Your task to perform on an android device: make emails show in primary in the gmail app Image 0: 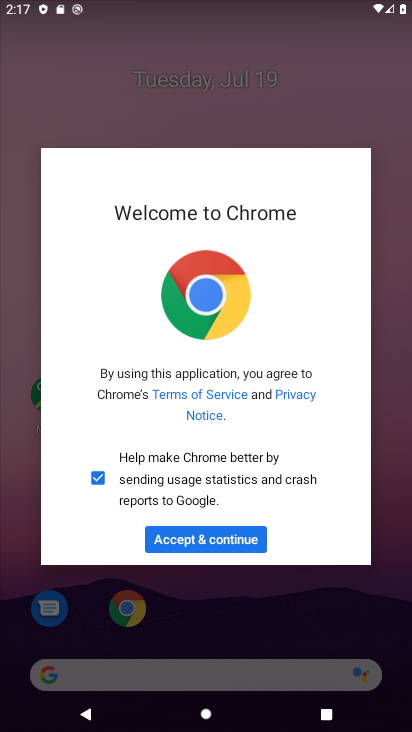
Step 0: press home button
Your task to perform on an android device: make emails show in primary in the gmail app Image 1: 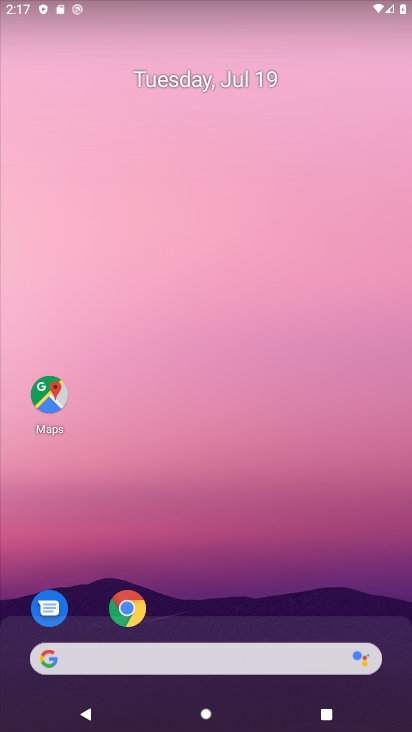
Step 1: drag from (222, 610) to (185, 24)
Your task to perform on an android device: make emails show in primary in the gmail app Image 2: 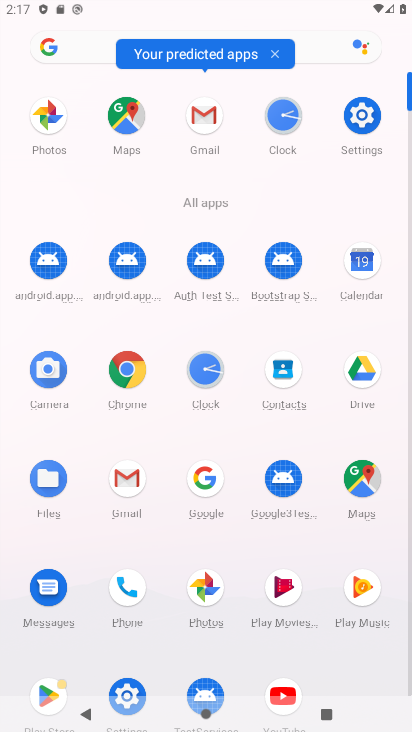
Step 2: click (204, 107)
Your task to perform on an android device: make emails show in primary in the gmail app Image 3: 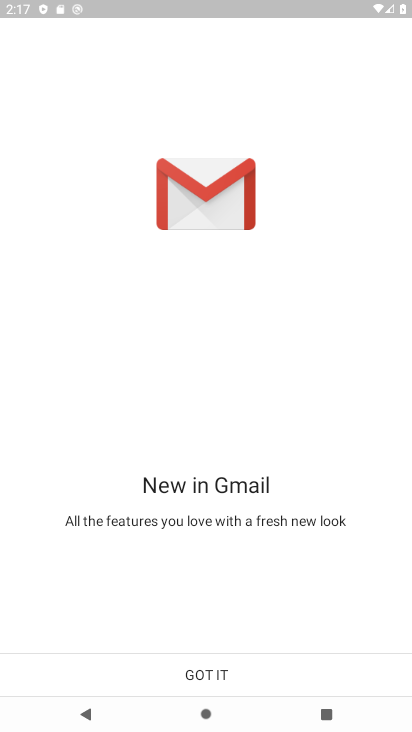
Step 3: click (210, 662)
Your task to perform on an android device: make emails show in primary in the gmail app Image 4: 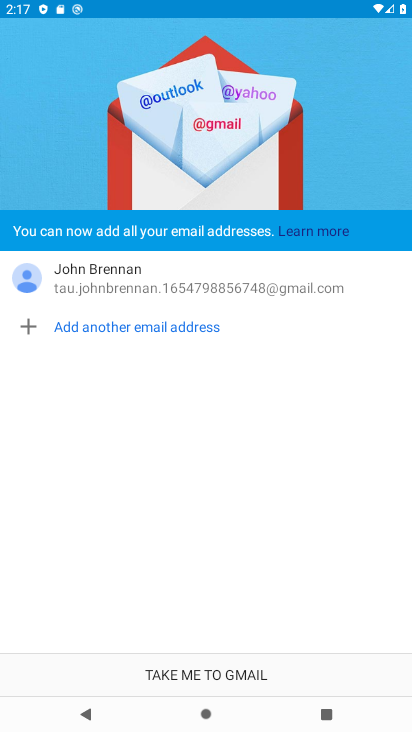
Step 4: click (212, 672)
Your task to perform on an android device: make emails show in primary in the gmail app Image 5: 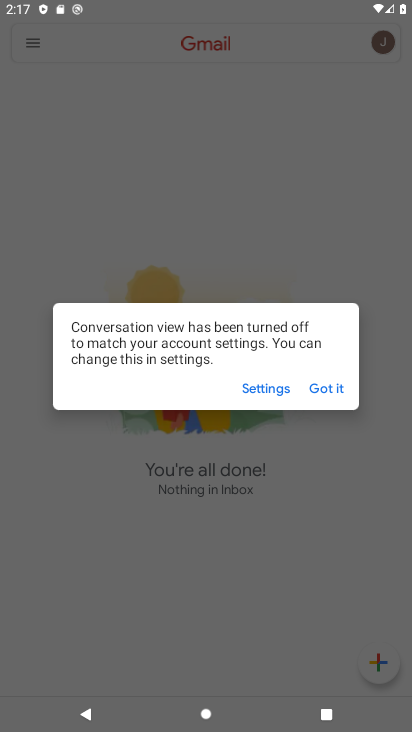
Step 5: click (327, 390)
Your task to perform on an android device: make emails show in primary in the gmail app Image 6: 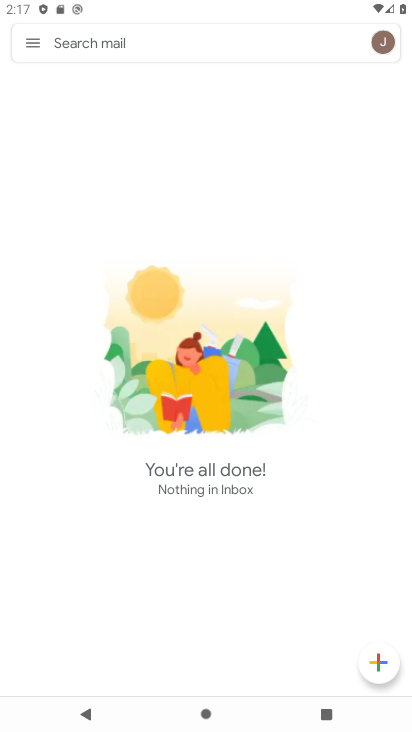
Step 6: click (28, 47)
Your task to perform on an android device: make emails show in primary in the gmail app Image 7: 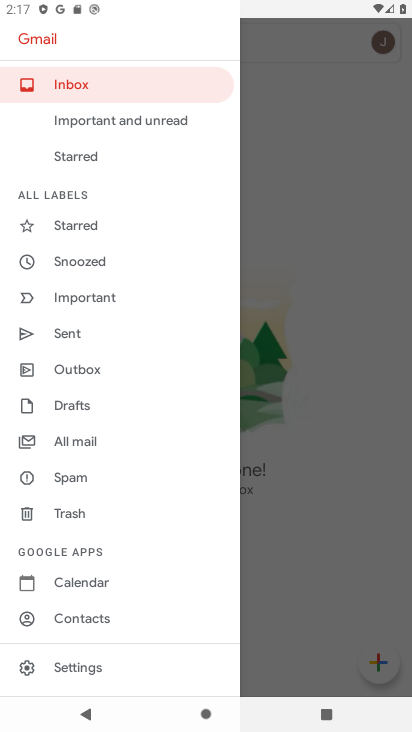
Step 7: click (94, 669)
Your task to perform on an android device: make emails show in primary in the gmail app Image 8: 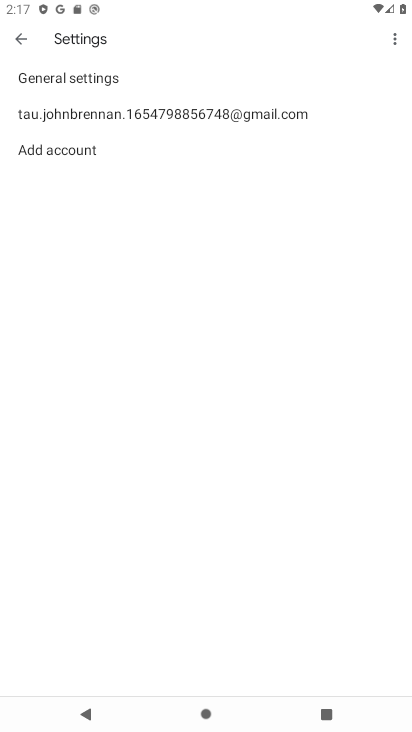
Step 8: click (210, 118)
Your task to perform on an android device: make emails show in primary in the gmail app Image 9: 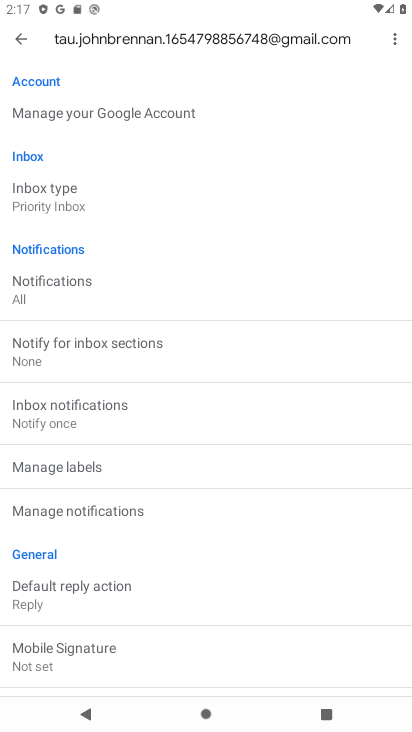
Step 9: click (73, 202)
Your task to perform on an android device: make emails show in primary in the gmail app Image 10: 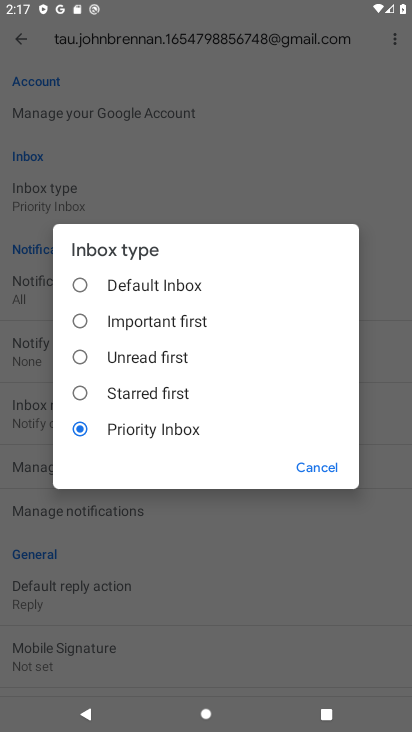
Step 10: click (141, 286)
Your task to perform on an android device: make emails show in primary in the gmail app Image 11: 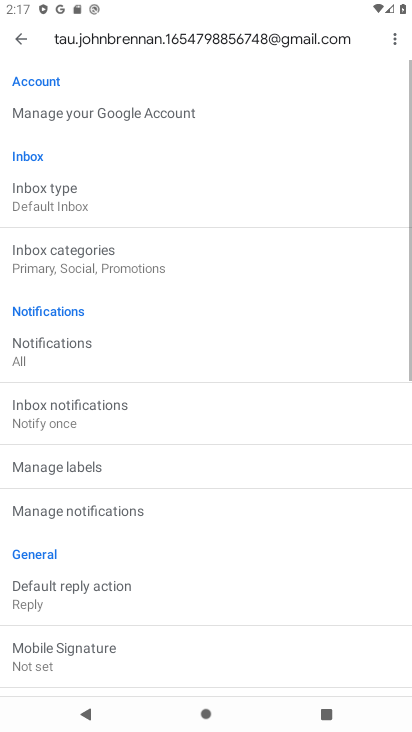
Step 11: click (111, 251)
Your task to perform on an android device: make emails show in primary in the gmail app Image 12: 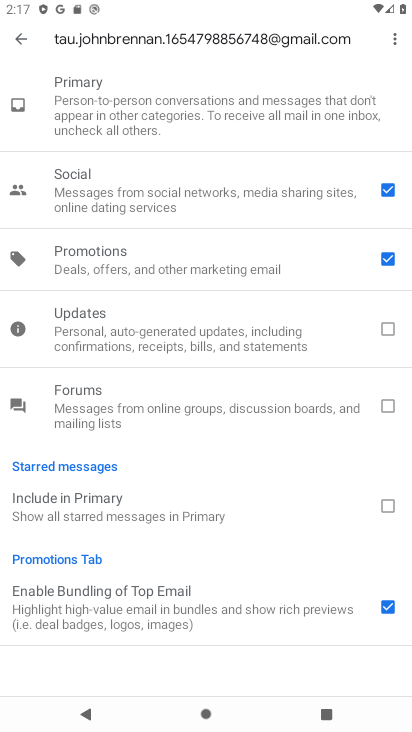
Step 12: task complete